Your task to perform on an android device: turn off airplane mode Image 0: 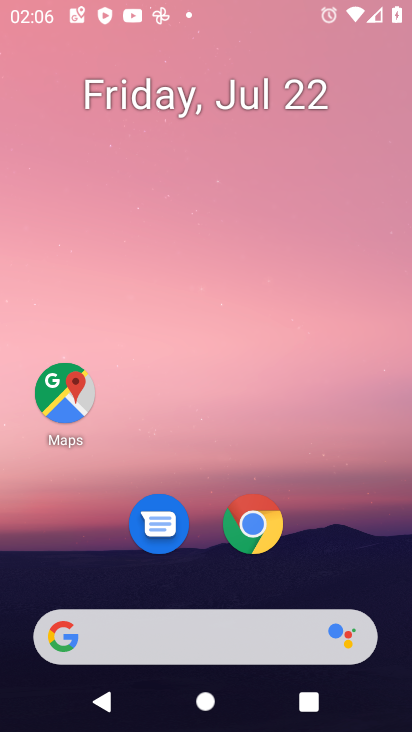
Step 0: press home button
Your task to perform on an android device: turn off airplane mode Image 1: 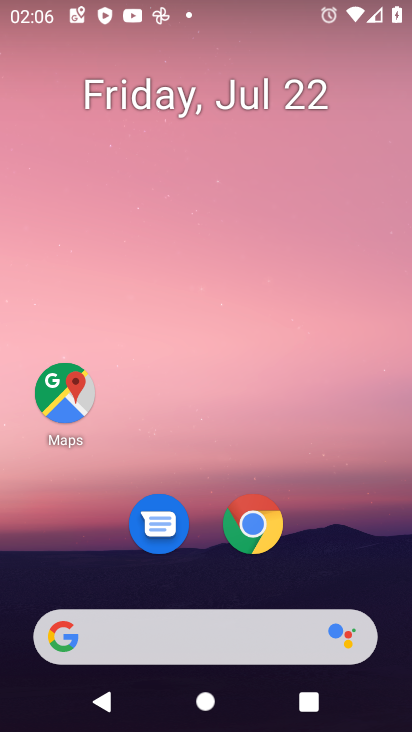
Step 1: drag from (191, 627) to (267, 231)
Your task to perform on an android device: turn off airplane mode Image 2: 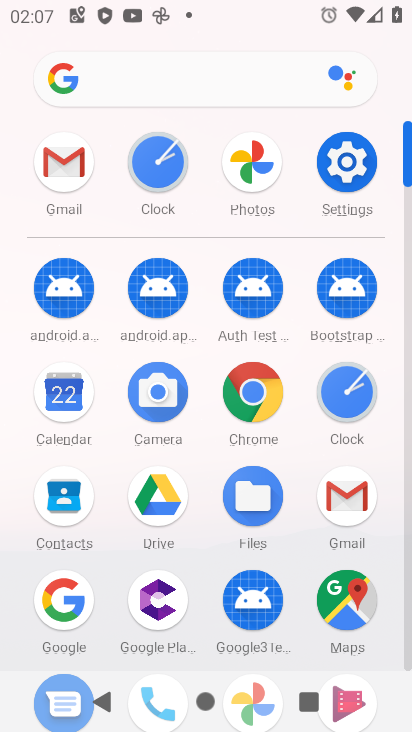
Step 2: click (349, 168)
Your task to perform on an android device: turn off airplane mode Image 3: 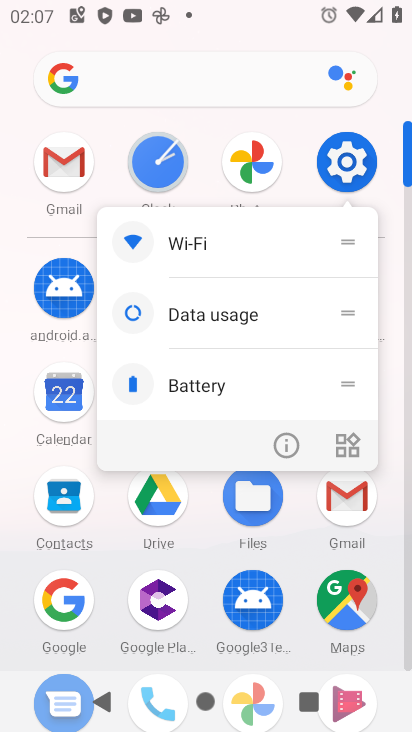
Step 3: click (338, 172)
Your task to perform on an android device: turn off airplane mode Image 4: 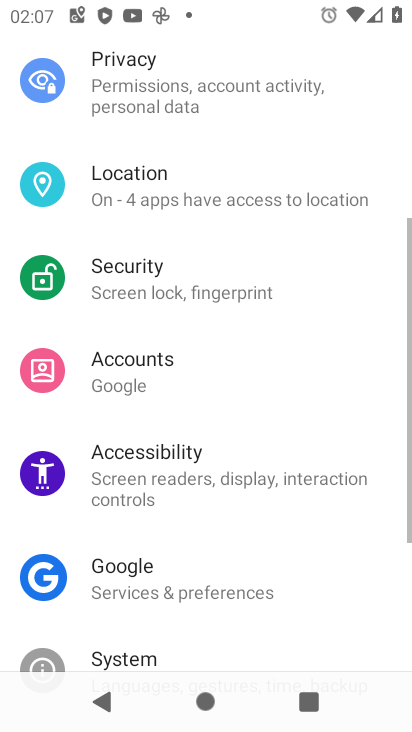
Step 4: click (346, 161)
Your task to perform on an android device: turn off airplane mode Image 5: 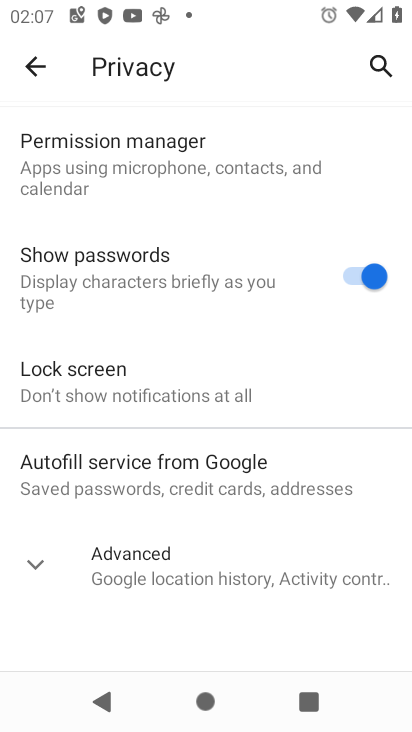
Step 5: click (35, 66)
Your task to perform on an android device: turn off airplane mode Image 6: 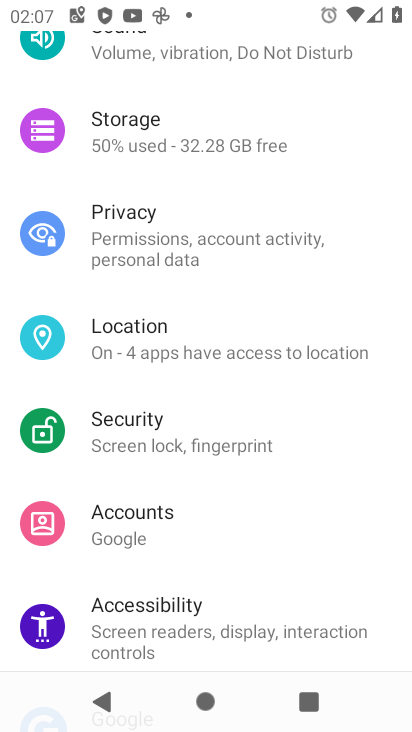
Step 6: drag from (307, 102) to (265, 629)
Your task to perform on an android device: turn off airplane mode Image 7: 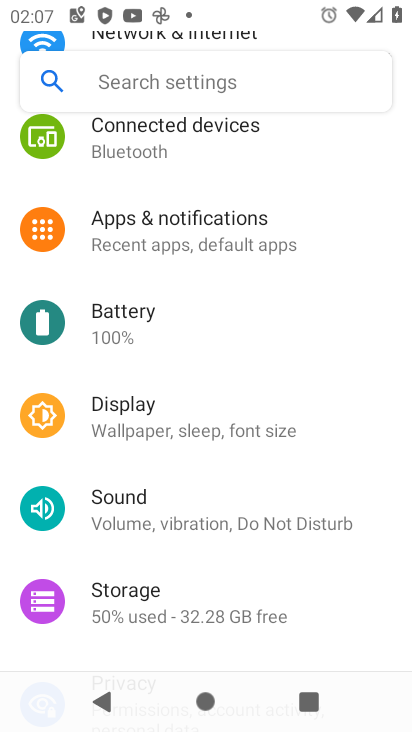
Step 7: drag from (287, 185) to (263, 548)
Your task to perform on an android device: turn off airplane mode Image 8: 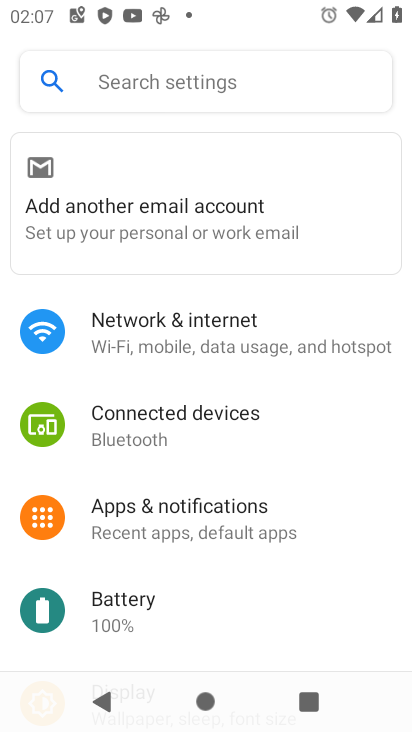
Step 8: click (186, 322)
Your task to perform on an android device: turn off airplane mode Image 9: 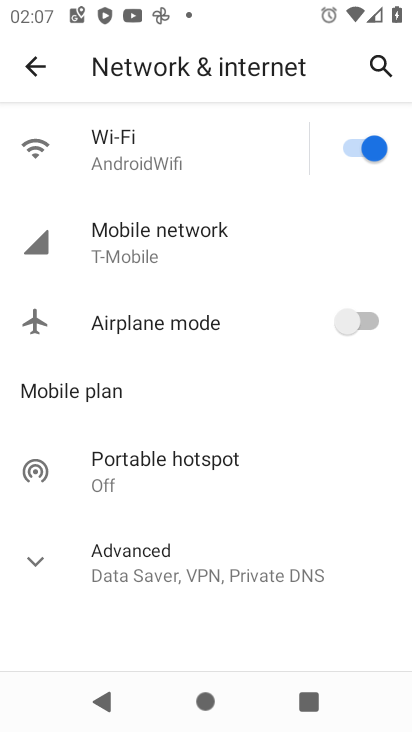
Step 9: task complete